Your task to perform on an android device: turn off picture-in-picture Image 0: 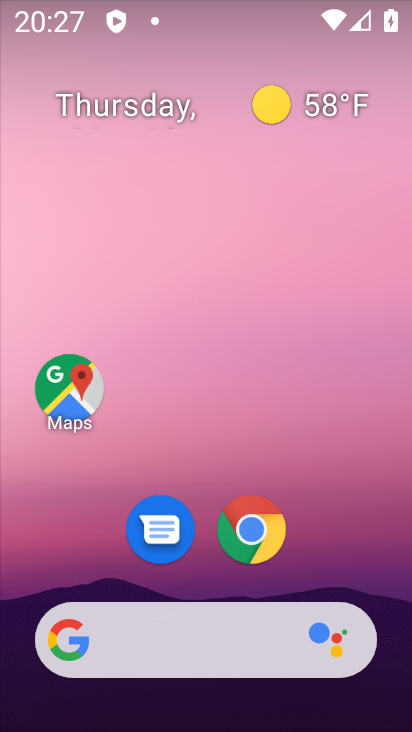
Step 0: click (253, 532)
Your task to perform on an android device: turn off picture-in-picture Image 1: 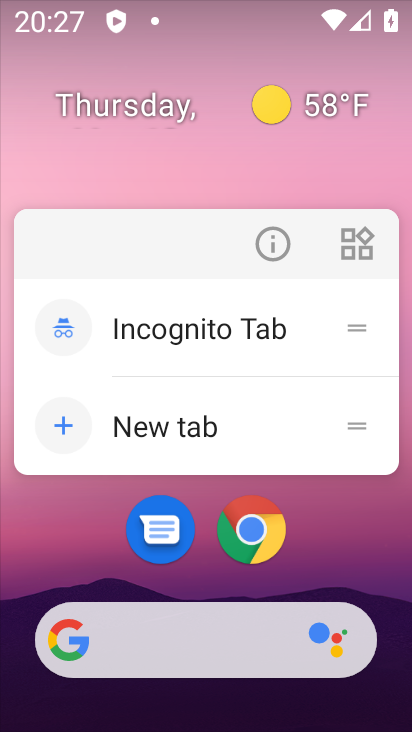
Step 1: click (282, 245)
Your task to perform on an android device: turn off picture-in-picture Image 2: 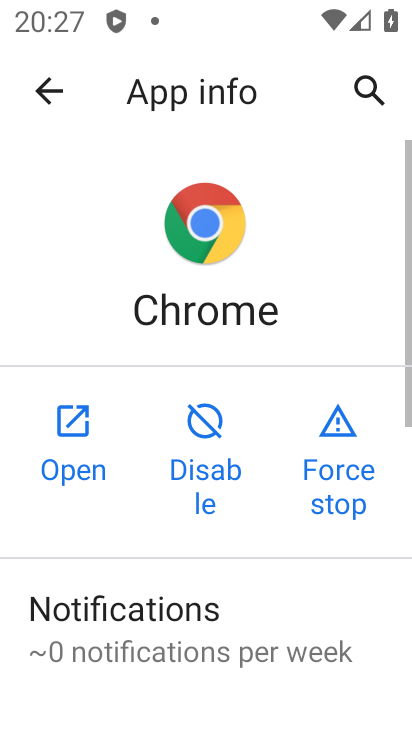
Step 2: drag from (294, 588) to (273, 106)
Your task to perform on an android device: turn off picture-in-picture Image 3: 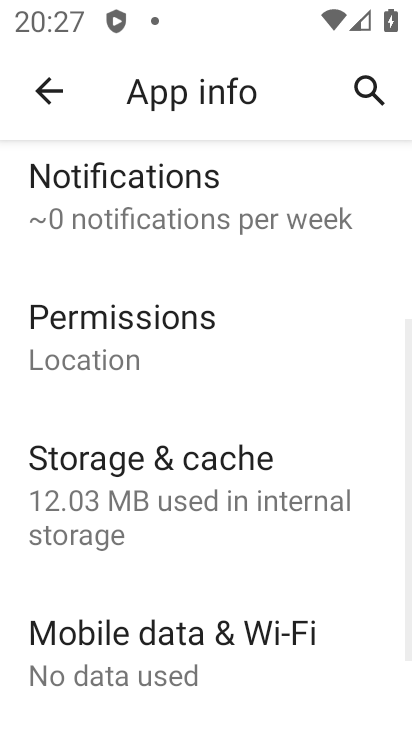
Step 3: drag from (206, 622) to (258, 75)
Your task to perform on an android device: turn off picture-in-picture Image 4: 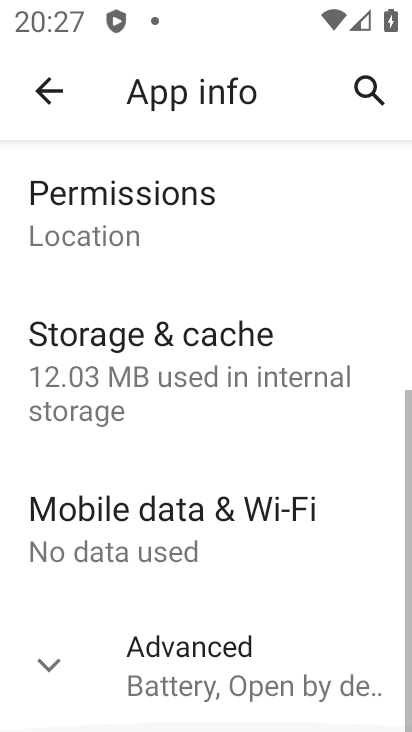
Step 4: click (150, 688)
Your task to perform on an android device: turn off picture-in-picture Image 5: 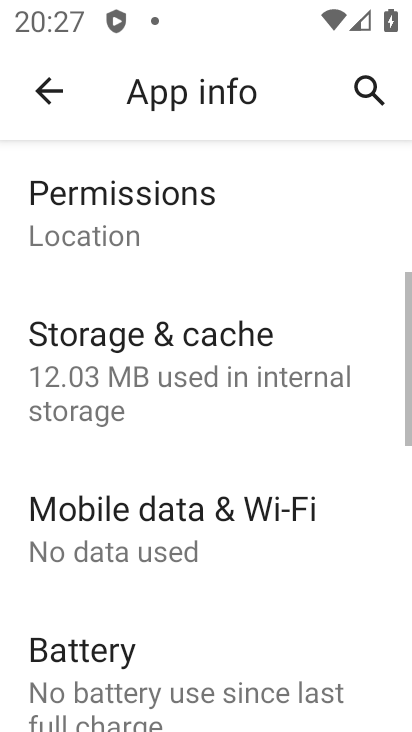
Step 5: drag from (269, 651) to (233, 186)
Your task to perform on an android device: turn off picture-in-picture Image 6: 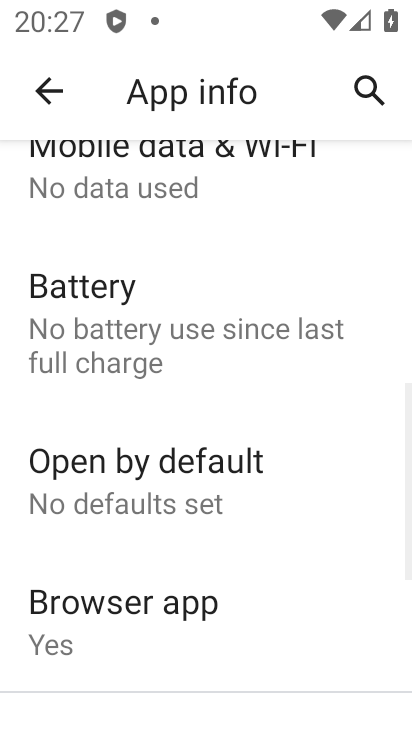
Step 6: drag from (226, 679) to (181, 240)
Your task to perform on an android device: turn off picture-in-picture Image 7: 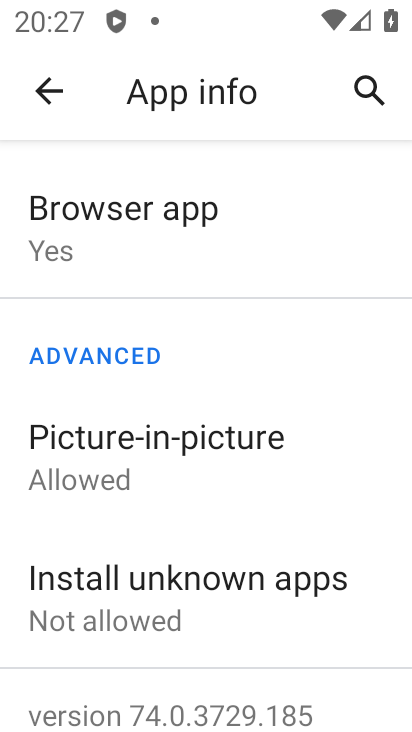
Step 7: click (126, 454)
Your task to perform on an android device: turn off picture-in-picture Image 8: 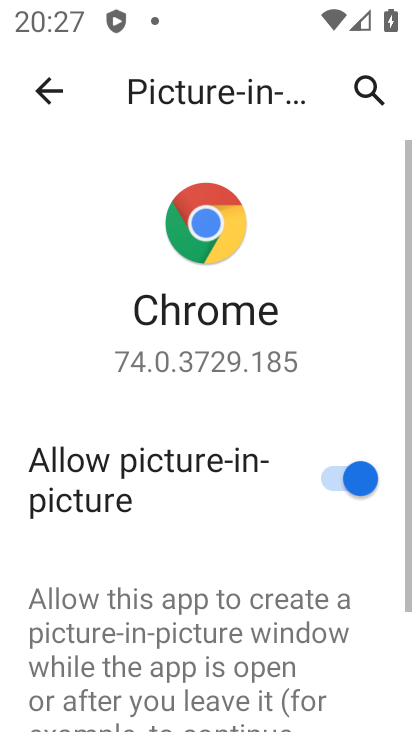
Step 8: click (346, 489)
Your task to perform on an android device: turn off picture-in-picture Image 9: 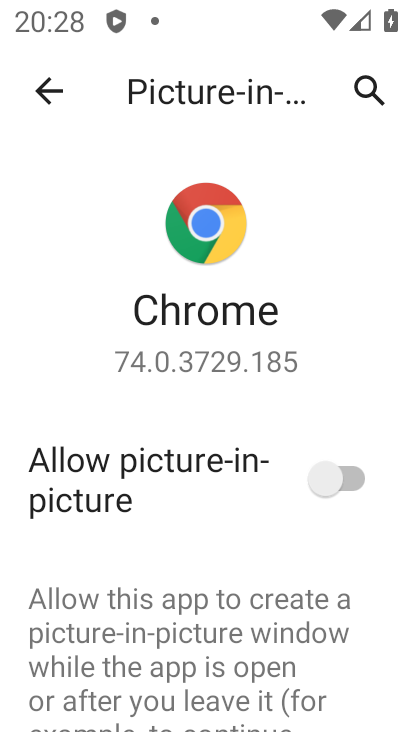
Step 9: task complete